Your task to perform on an android device: toggle sleep mode Image 0: 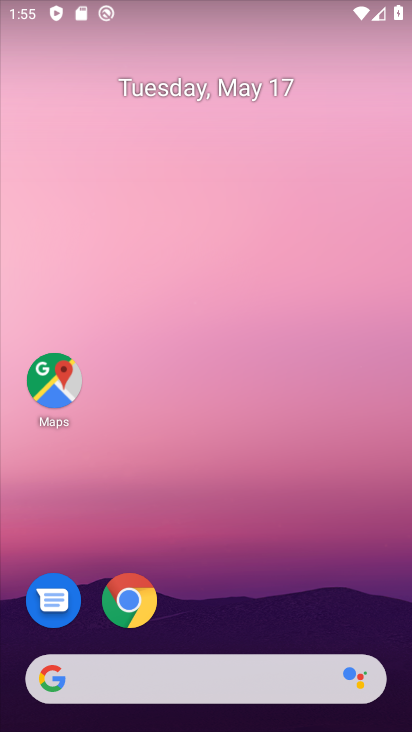
Step 0: drag from (253, 586) to (264, 213)
Your task to perform on an android device: toggle sleep mode Image 1: 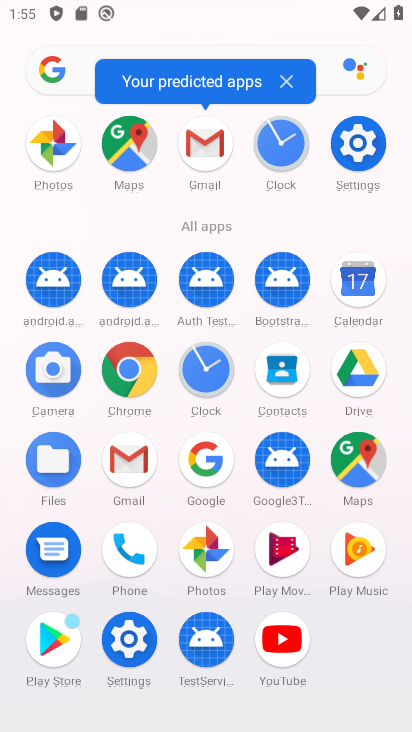
Step 1: click (365, 145)
Your task to perform on an android device: toggle sleep mode Image 2: 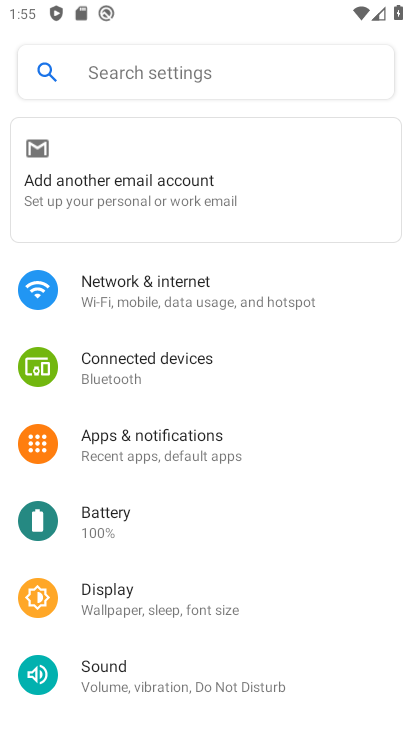
Step 2: click (88, 595)
Your task to perform on an android device: toggle sleep mode Image 3: 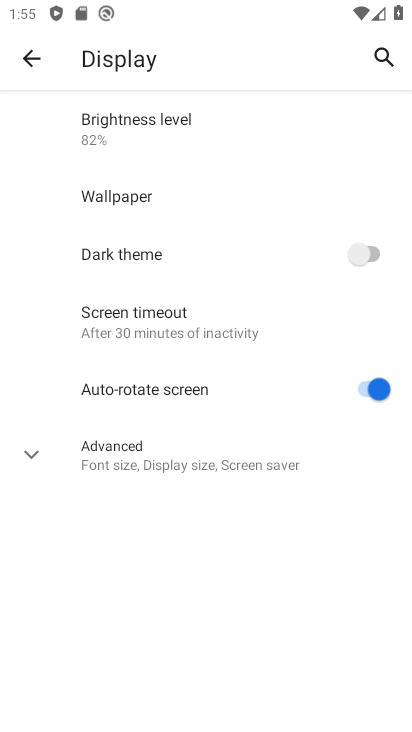
Step 3: click (117, 320)
Your task to perform on an android device: toggle sleep mode Image 4: 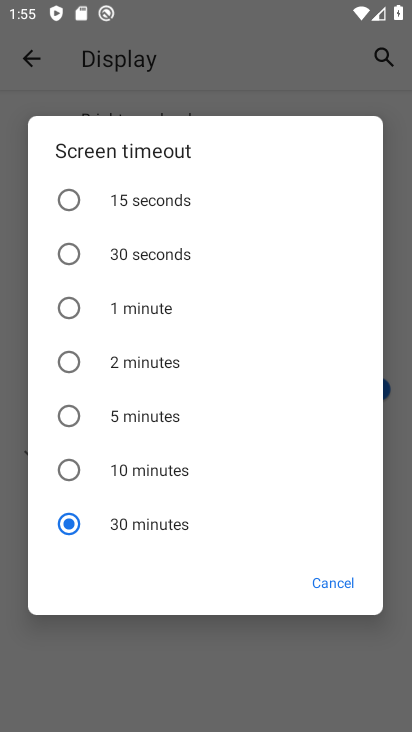
Step 4: click (71, 418)
Your task to perform on an android device: toggle sleep mode Image 5: 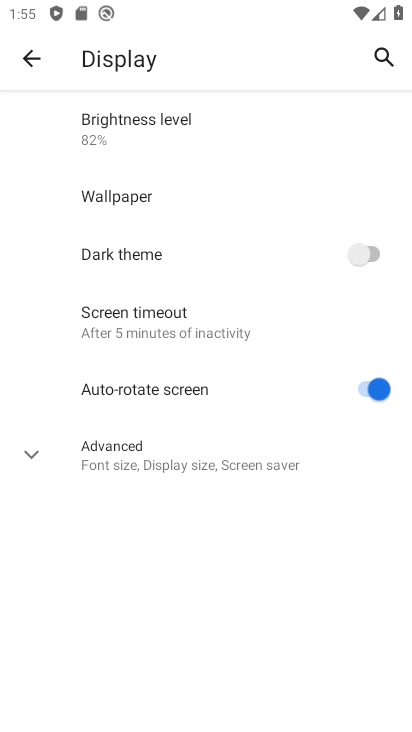
Step 5: task complete